Your task to perform on an android device: Show me productivity apps on the Play Store Image 0: 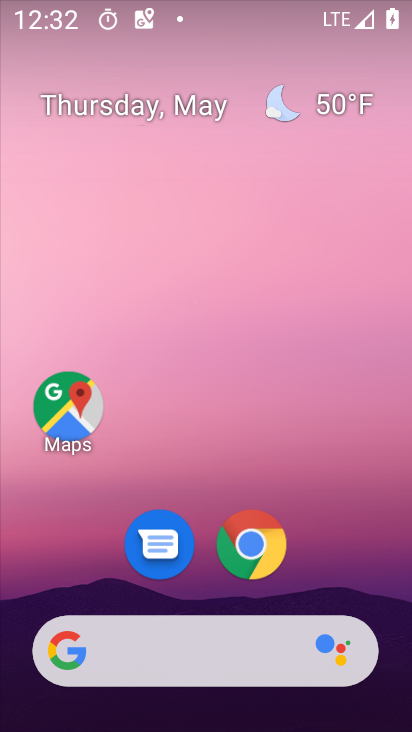
Step 0: drag from (133, 633) to (114, 167)
Your task to perform on an android device: Show me productivity apps on the Play Store Image 1: 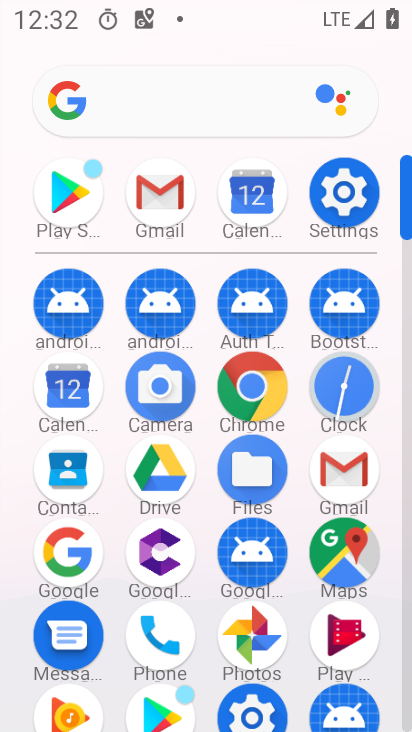
Step 1: click (161, 696)
Your task to perform on an android device: Show me productivity apps on the Play Store Image 2: 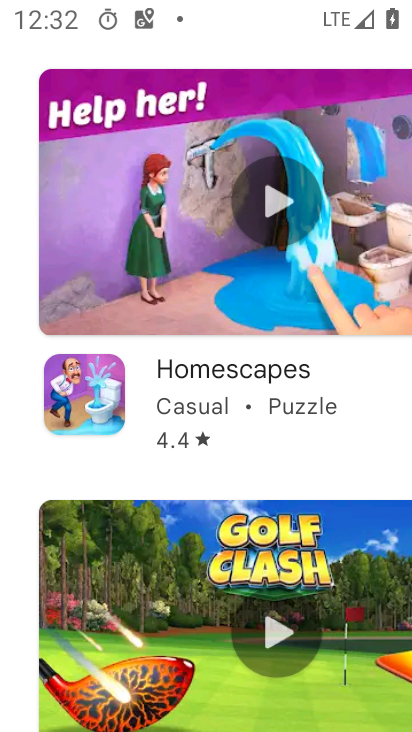
Step 2: drag from (147, 244) to (176, 633)
Your task to perform on an android device: Show me productivity apps on the Play Store Image 3: 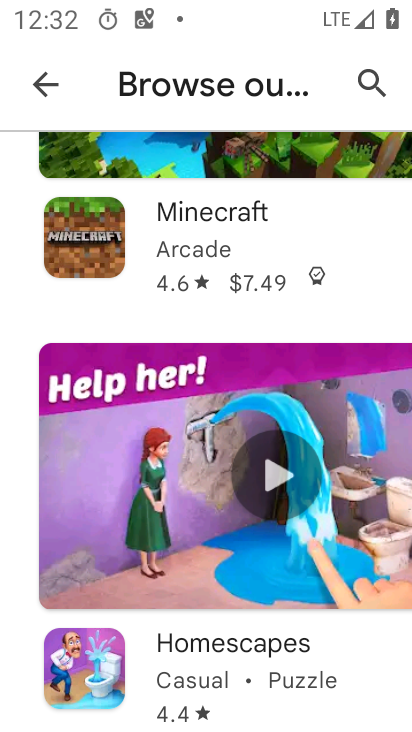
Step 3: click (35, 79)
Your task to perform on an android device: Show me productivity apps on the Play Store Image 4: 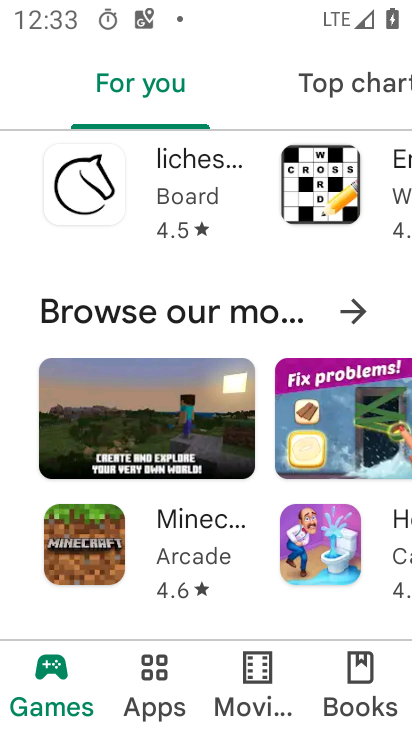
Step 4: click (161, 657)
Your task to perform on an android device: Show me productivity apps on the Play Store Image 5: 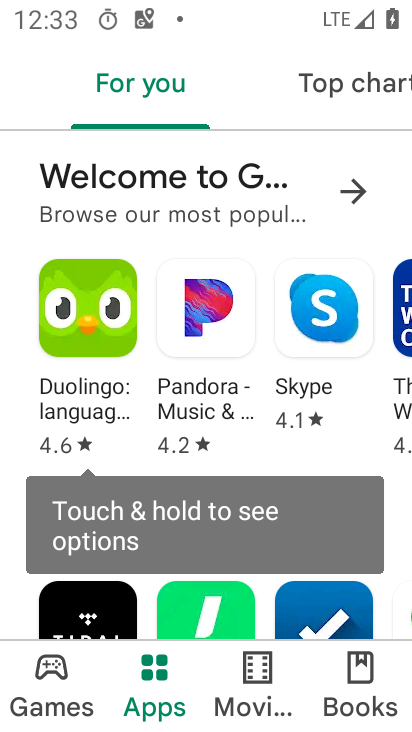
Step 5: drag from (349, 83) to (220, 80)
Your task to perform on an android device: Show me productivity apps on the Play Store Image 6: 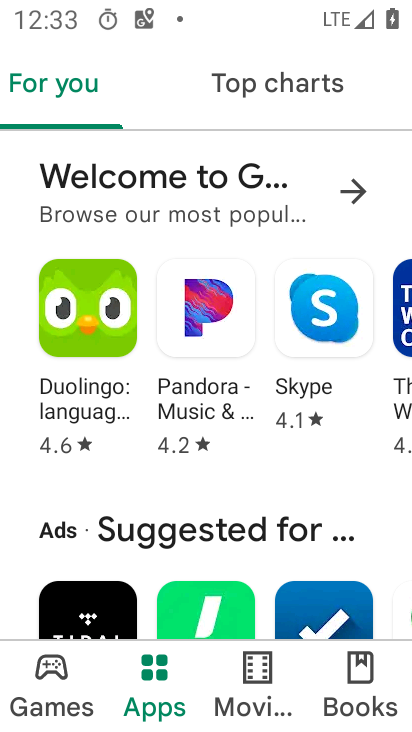
Step 6: drag from (360, 103) to (58, 114)
Your task to perform on an android device: Show me productivity apps on the Play Store Image 7: 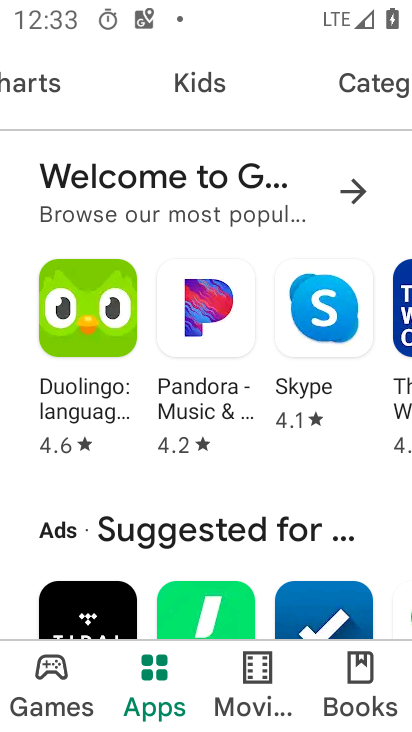
Step 7: click (363, 90)
Your task to perform on an android device: Show me productivity apps on the Play Store Image 8: 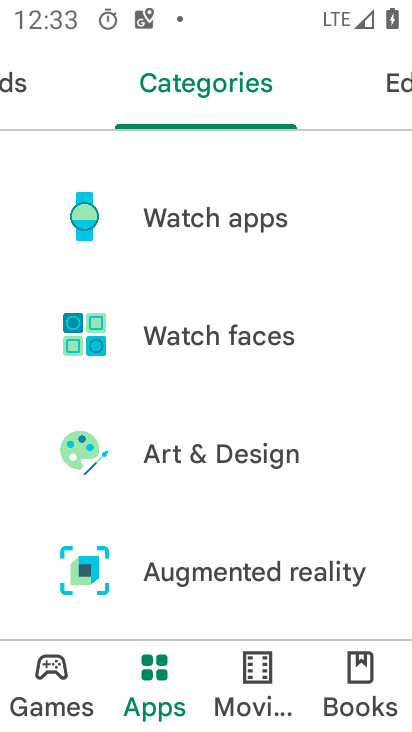
Step 8: drag from (298, 516) to (261, 95)
Your task to perform on an android device: Show me productivity apps on the Play Store Image 9: 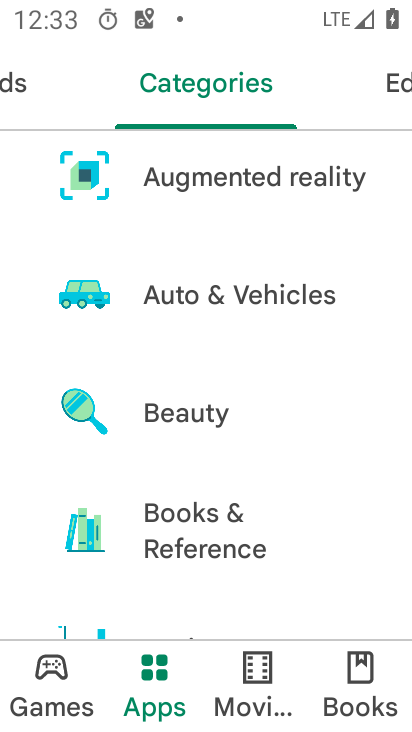
Step 9: drag from (270, 586) to (301, 88)
Your task to perform on an android device: Show me productivity apps on the Play Store Image 10: 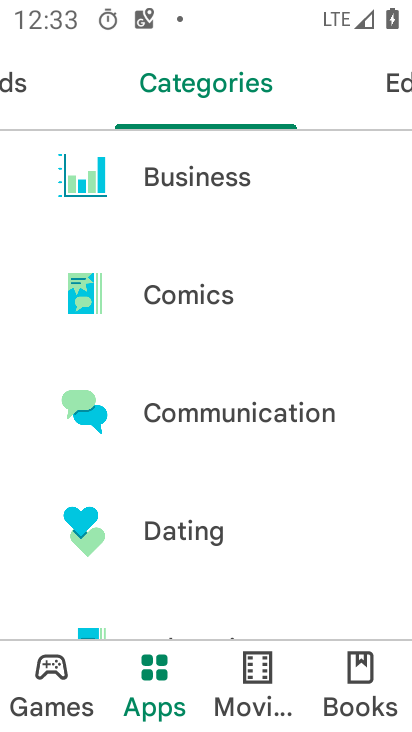
Step 10: drag from (282, 521) to (283, 34)
Your task to perform on an android device: Show me productivity apps on the Play Store Image 11: 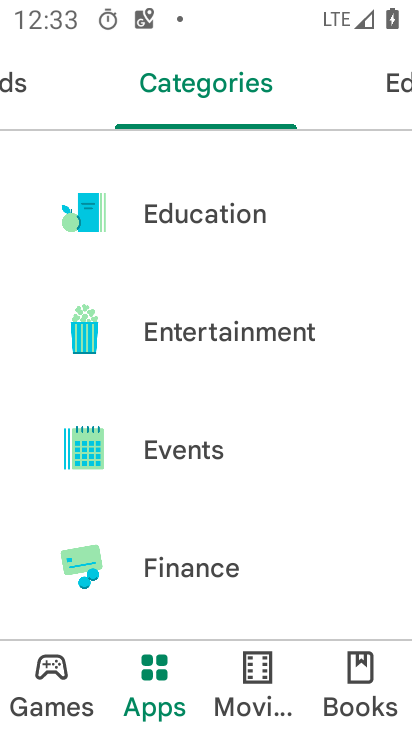
Step 11: drag from (214, 577) to (193, 145)
Your task to perform on an android device: Show me productivity apps on the Play Store Image 12: 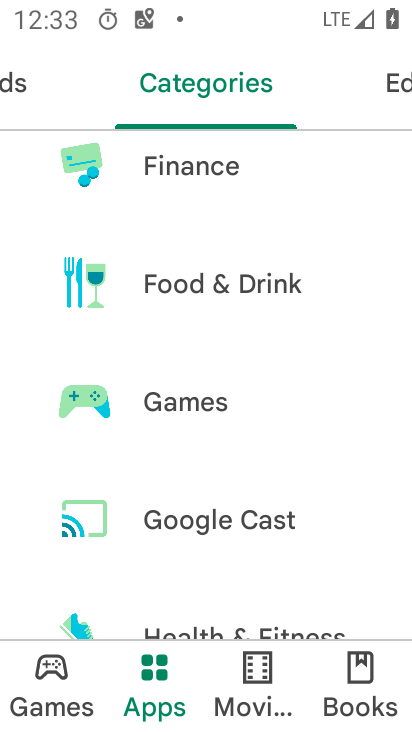
Step 12: drag from (167, 458) to (147, 55)
Your task to perform on an android device: Show me productivity apps on the Play Store Image 13: 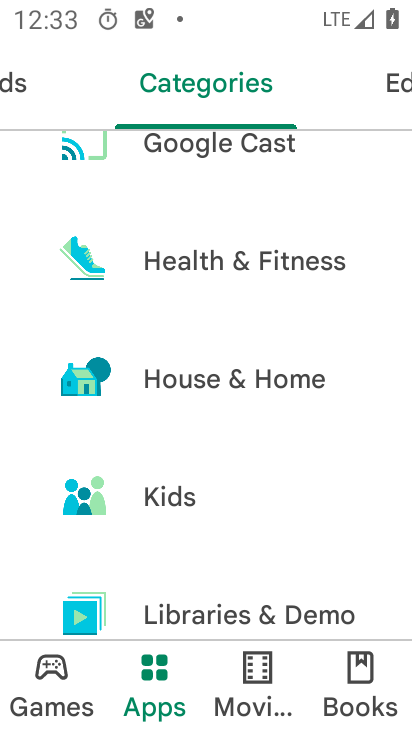
Step 13: drag from (186, 566) to (204, 138)
Your task to perform on an android device: Show me productivity apps on the Play Store Image 14: 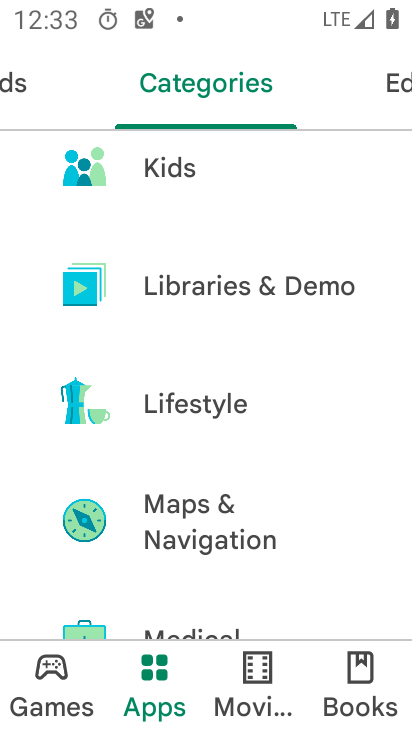
Step 14: drag from (220, 551) to (212, 231)
Your task to perform on an android device: Show me productivity apps on the Play Store Image 15: 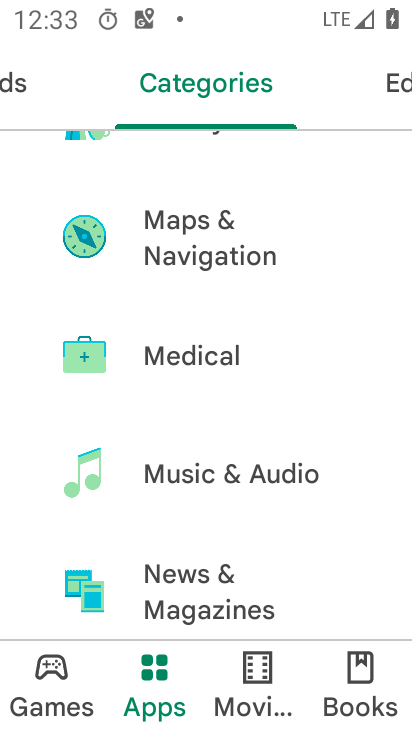
Step 15: drag from (175, 541) to (180, 112)
Your task to perform on an android device: Show me productivity apps on the Play Store Image 16: 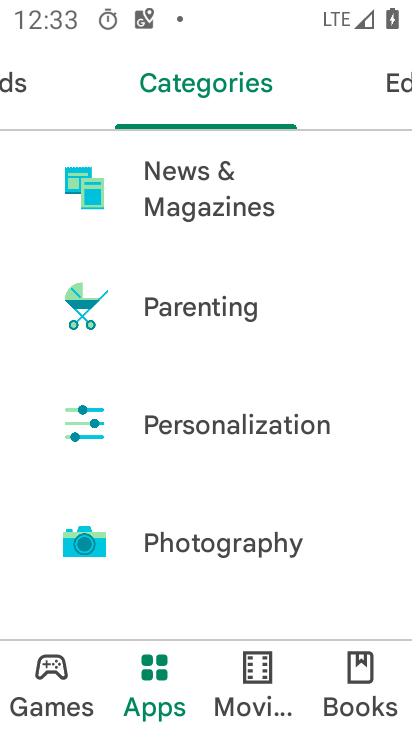
Step 16: drag from (187, 556) to (171, 267)
Your task to perform on an android device: Show me productivity apps on the Play Store Image 17: 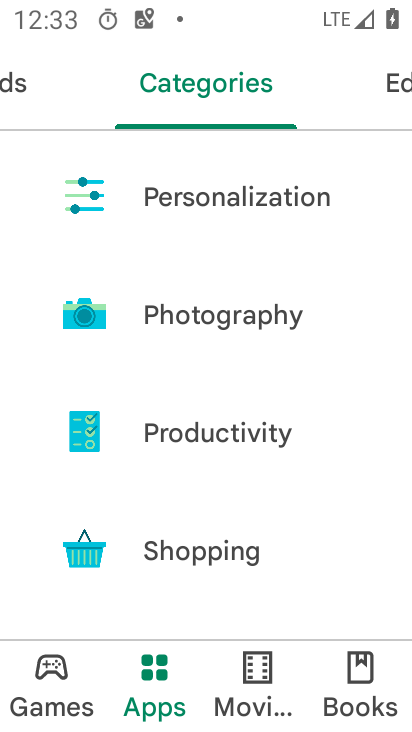
Step 17: click (173, 440)
Your task to perform on an android device: Show me productivity apps on the Play Store Image 18: 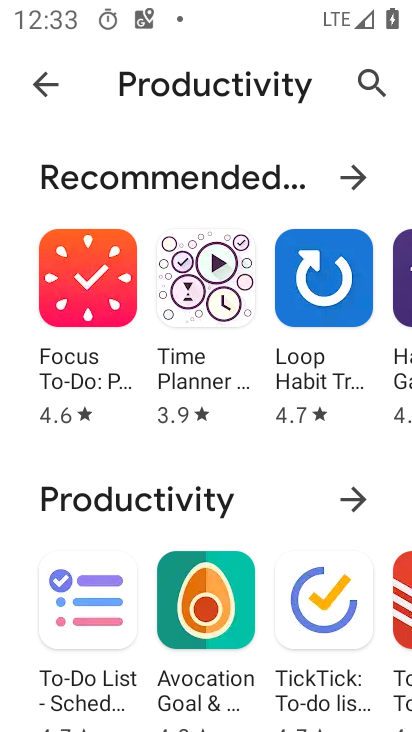
Step 18: task complete